Your task to perform on an android device: change notification settings in the gmail app Image 0: 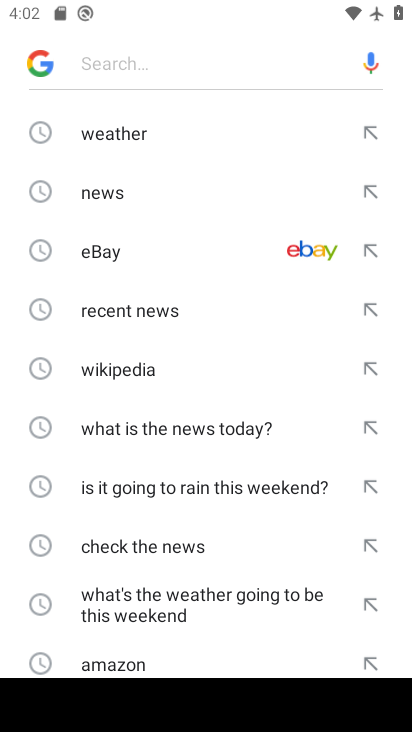
Step 0: press home button
Your task to perform on an android device: change notification settings in the gmail app Image 1: 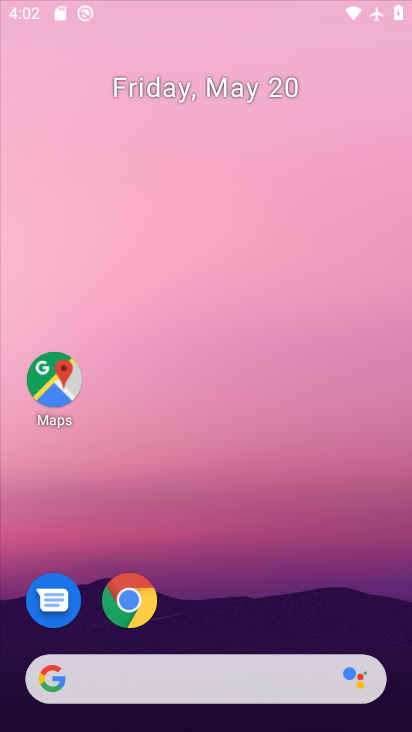
Step 1: drag from (317, 599) to (159, 0)
Your task to perform on an android device: change notification settings in the gmail app Image 2: 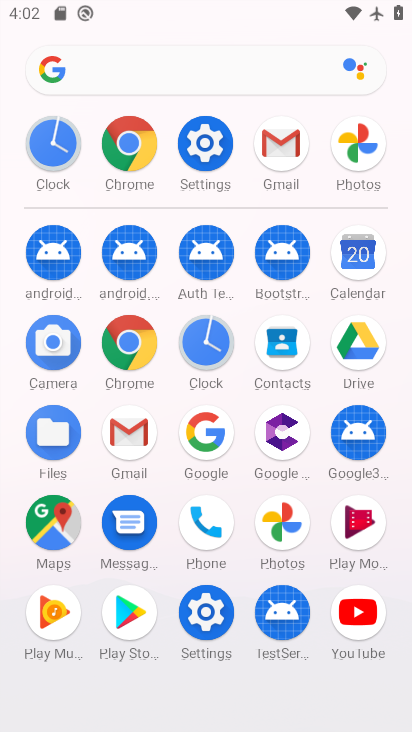
Step 2: click (127, 431)
Your task to perform on an android device: change notification settings in the gmail app Image 3: 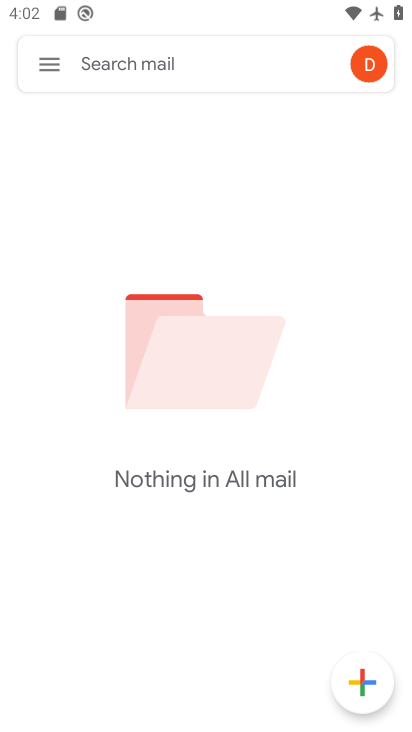
Step 3: click (49, 63)
Your task to perform on an android device: change notification settings in the gmail app Image 4: 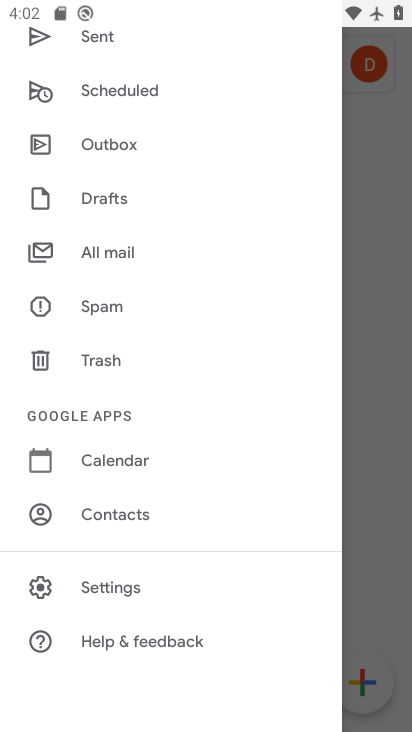
Step 4: click (149, 587)
Your task to perform on an android device: change notification settings in the gmail app Image 5: 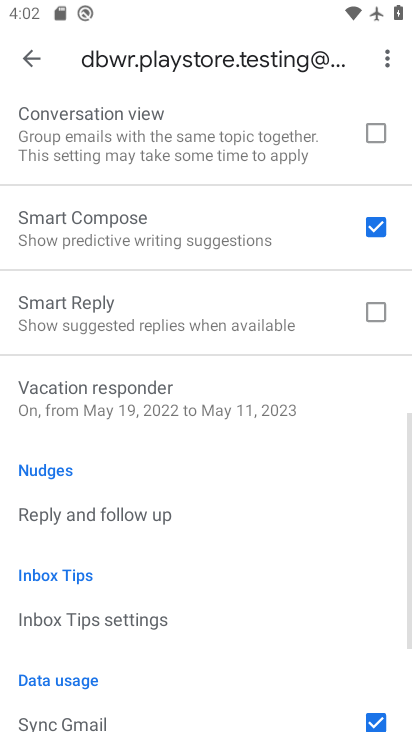
Step 5: drag from (175, 576) to (168, 53)
Your task to perform on an android device: change notification settings in the gmail app Image 6: 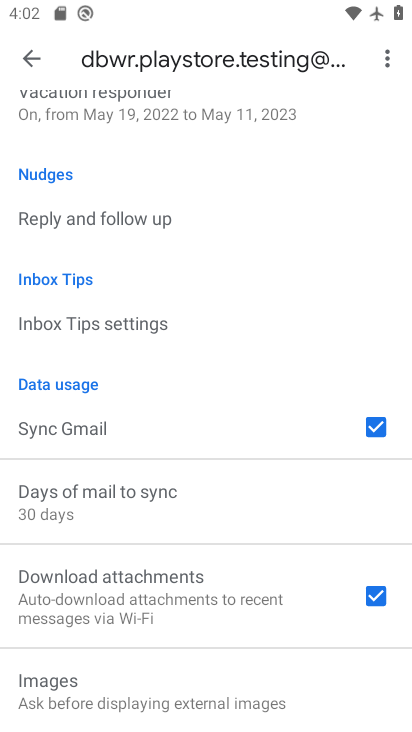
Step 6: drag from (220, 207) to (154, 640)
Your task to perform on an android device: change notification settings in the gmail app Image 7: 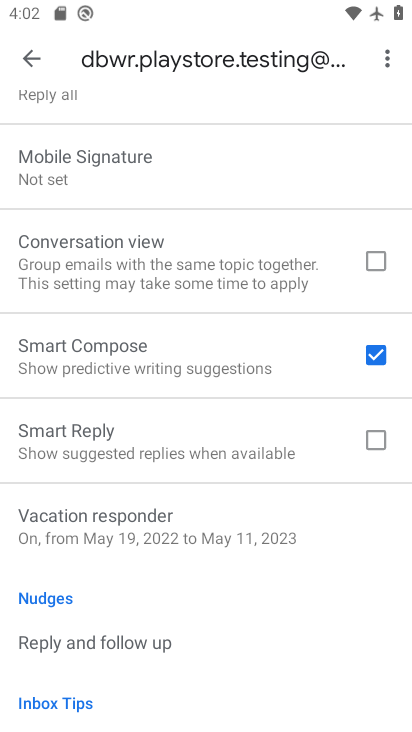
Step 7: click (120, 729)
Your task to perform on an android device: change notification settings in the gmail app Image 8: 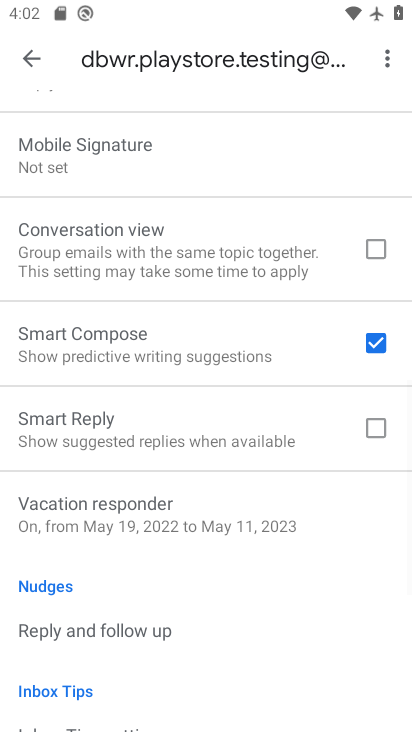
Step 8: drag from (202, 211) to (128, 698)
Your task to perform on an android device: change notification settings in the gmail app Image 9: 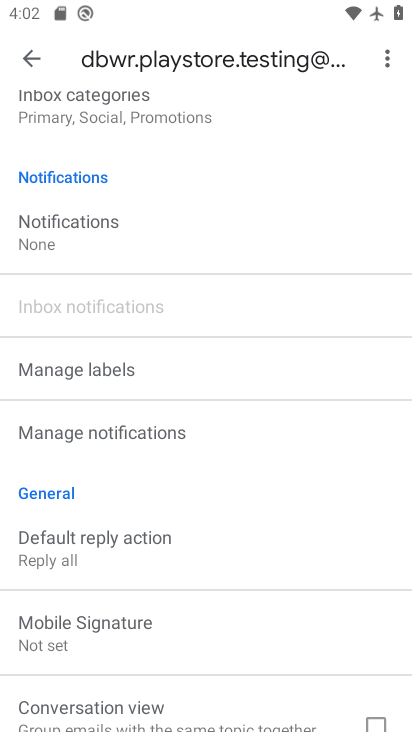
Step 9: click (130, 213)
Your task to perform on an android device: change notification settings in the gmail app Image 10: 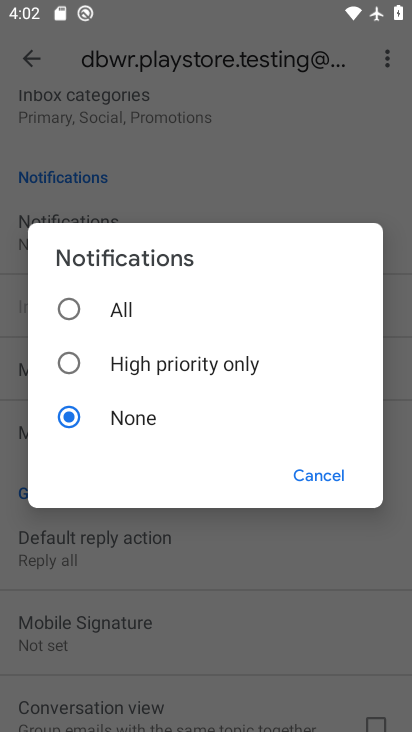
Step 10: click (122, 308)
Your task to perform on an android device: change notification settings in the gmail app Image 11: 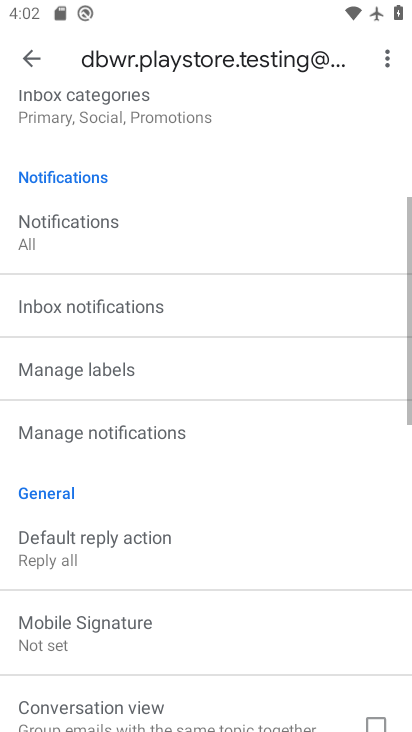
Step 11: task complete